Your task to perform on an android device: What's the latest video from GameSpot Reviews? Image 0: 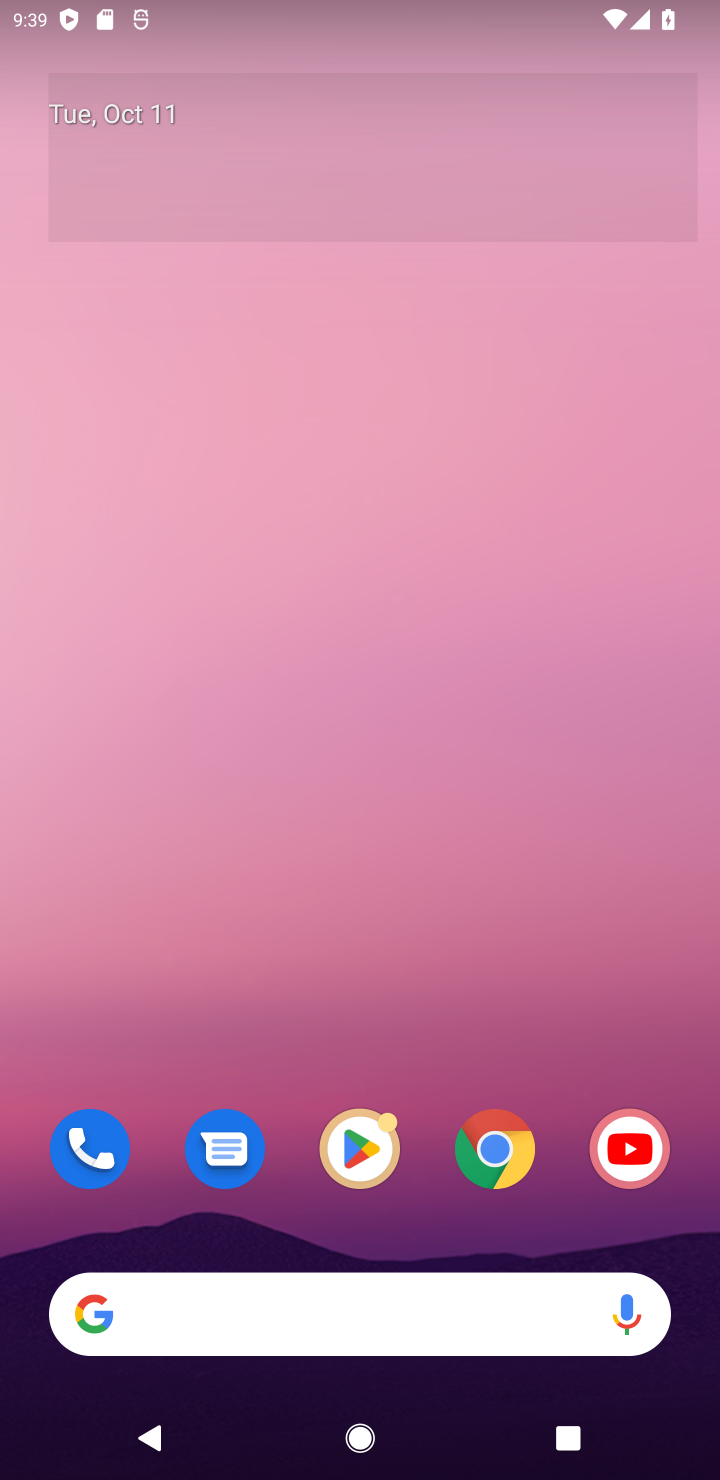
Step 0: drag from (484, 1229) to (400, 231)
Your task to perform on an android device: What's the latest video from GameSpot Reviews? Image 1: 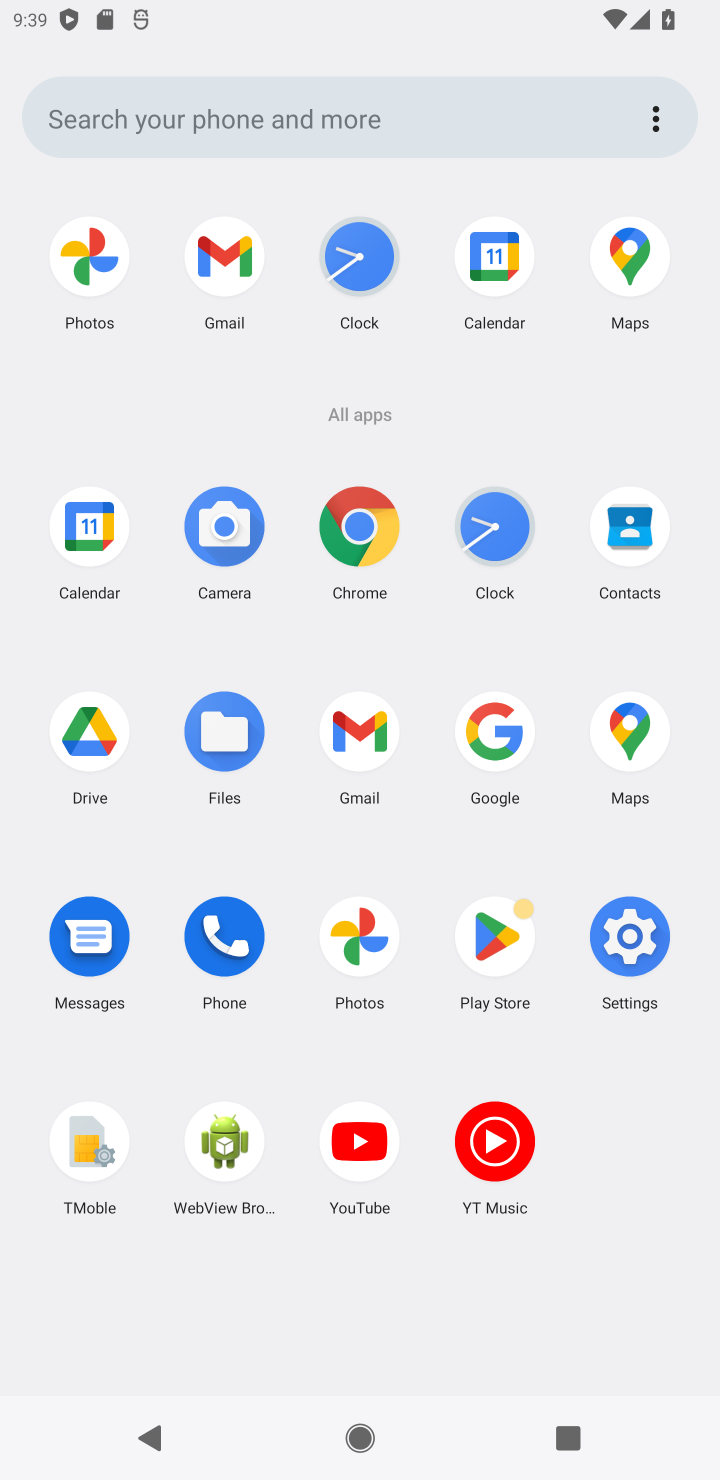
Step 1: click (367, 511)
Your task to perform on an android device: What's the latest video from GameSpot Reviews? Image 2: 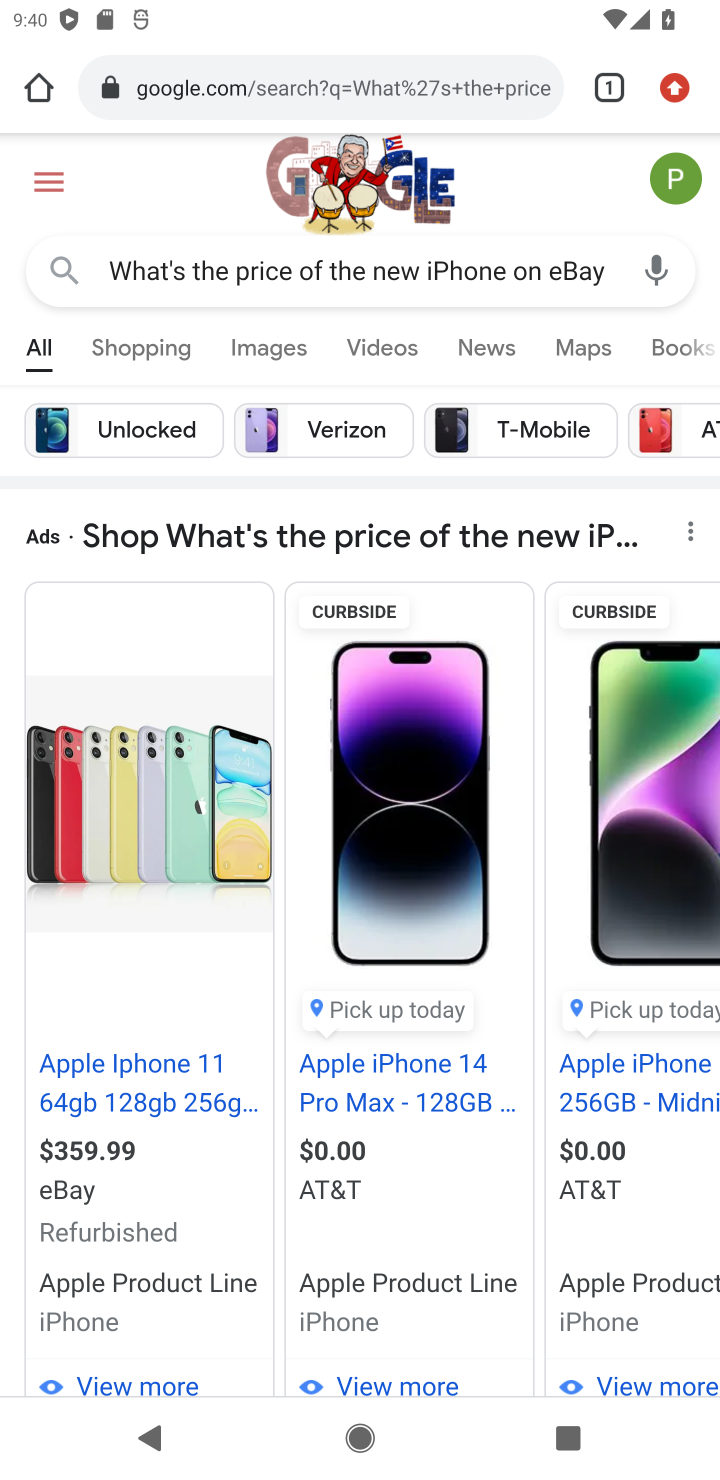
Step 2: click (417, 74)
Your task to perform on an android device: What's the latest video from GameSpot Reviews? Image 3: 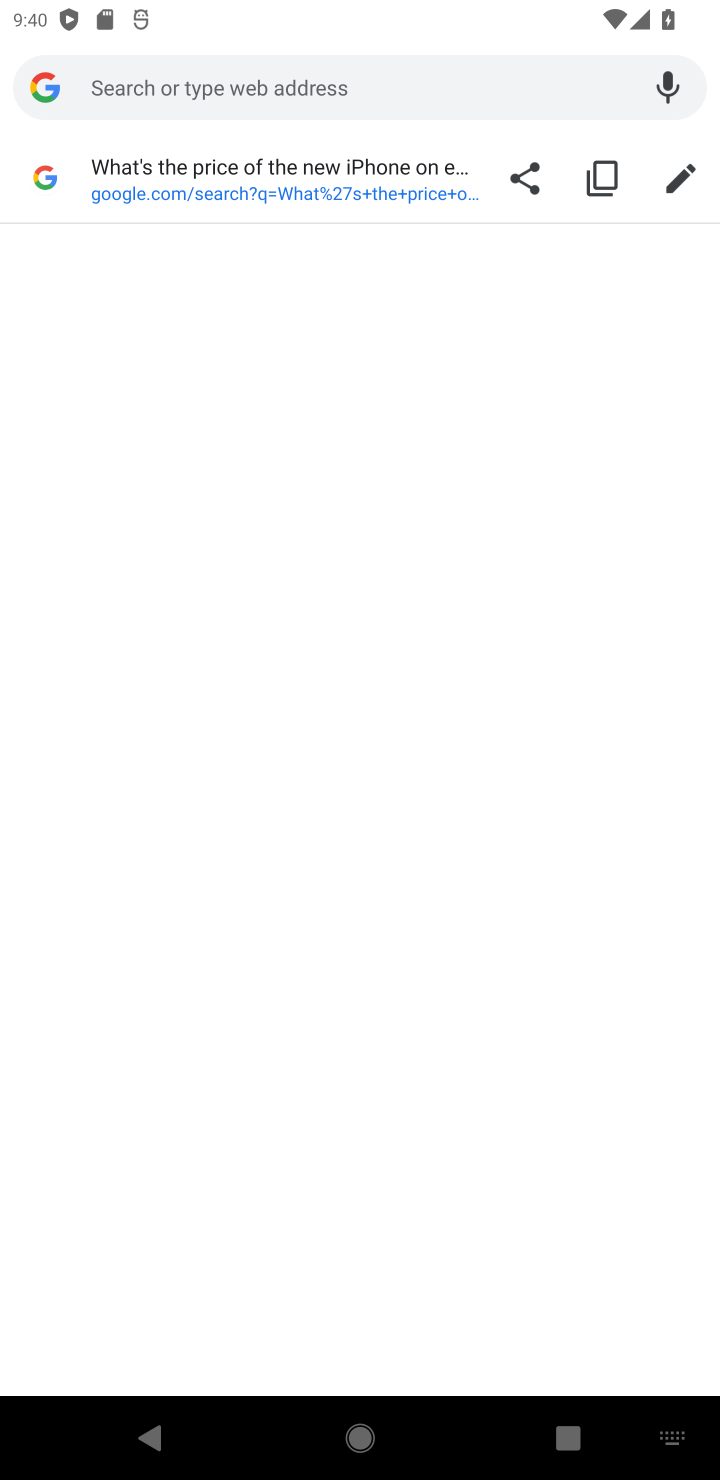
Step 3: click (490, 85)
Your task to perform on an android device: What's the latest video from GameSpot Reviews? Image 4: 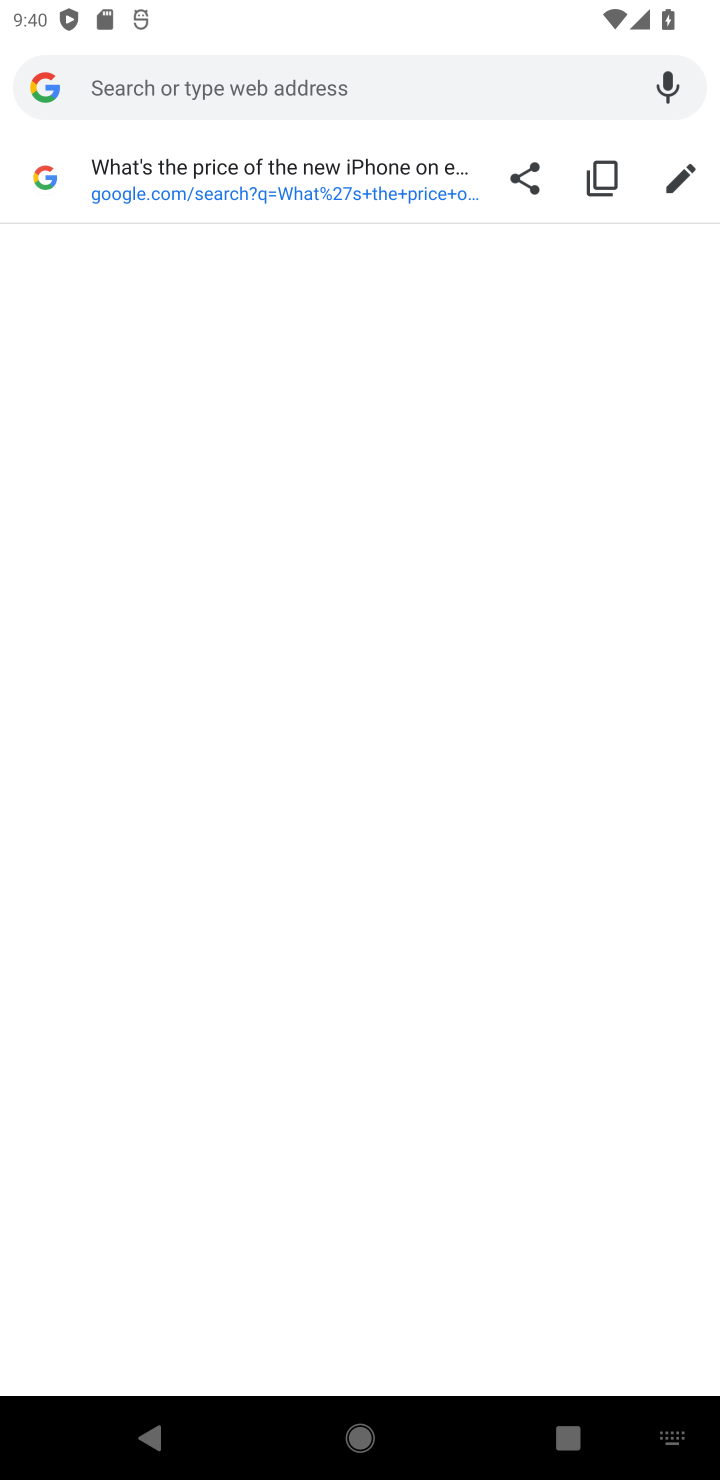
Step 4: type "What's the latest video from GameSpot Reviews?"
Your task to perform on an android device: What's the latest video from GameSpot Reviews? Image 5: 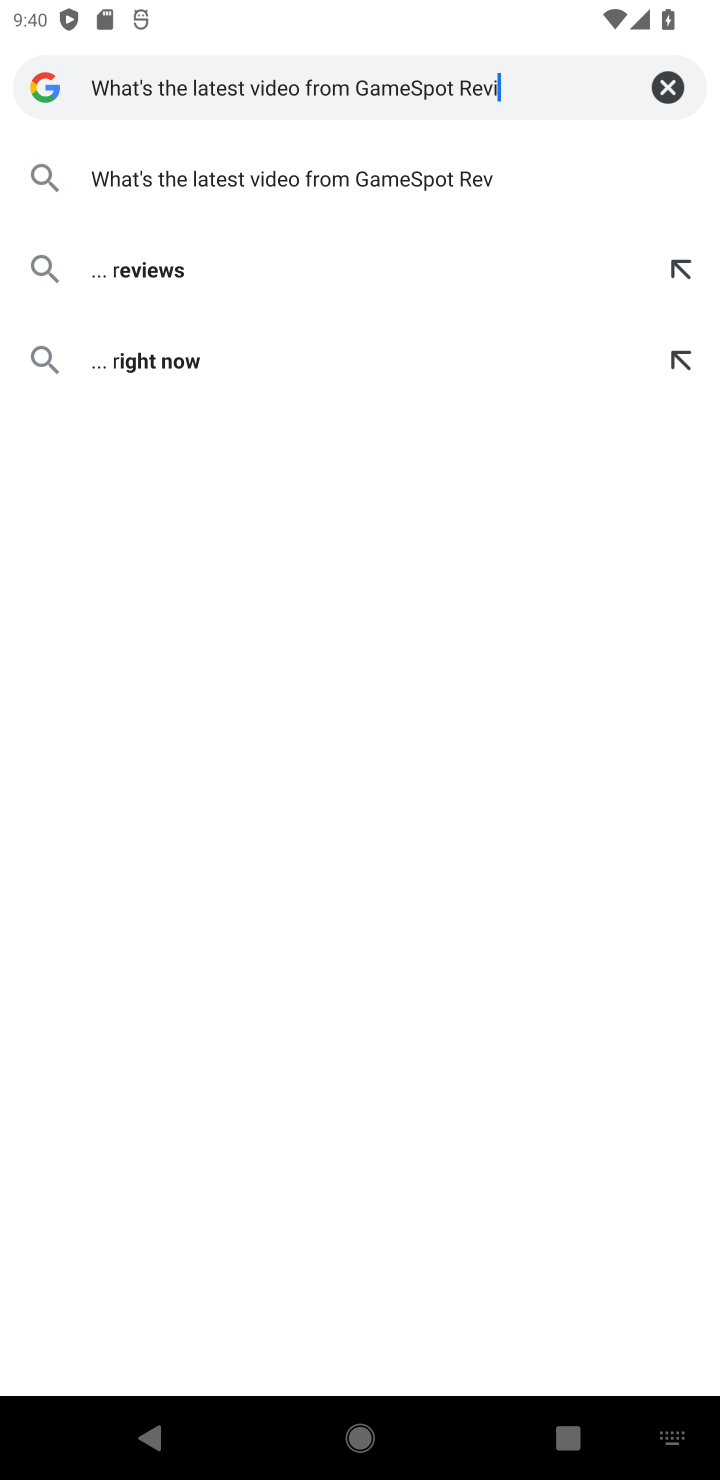
Step 5: press enter
Your task to perform on an android device: What's the latest video from GameSpot Reviews? Image 6: 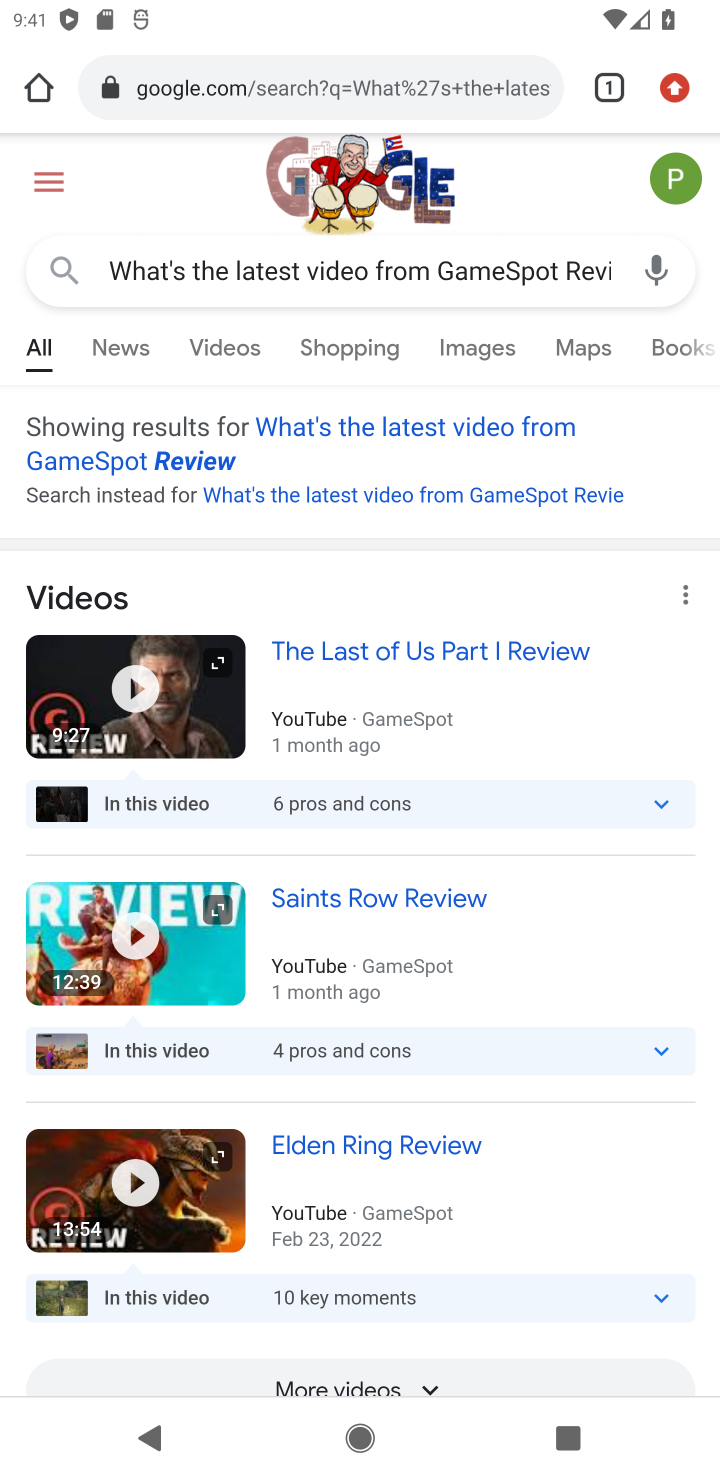
Step 6: click (129, 731)
Your task to perform on an android device: What's the latest video from GameSpot Reviews? Image 7: 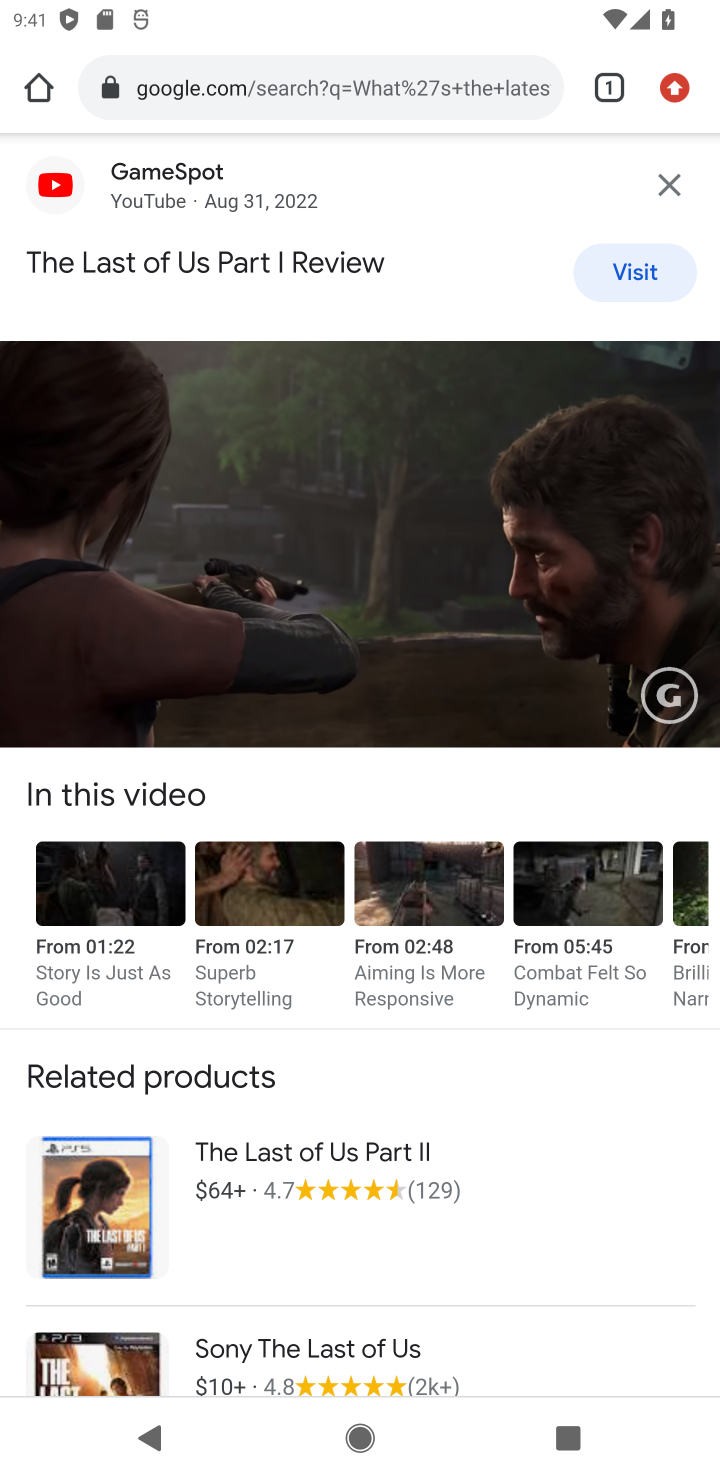
Step 7: task complete